Your task to perform on an android device: toggle sleep mode Image 0: 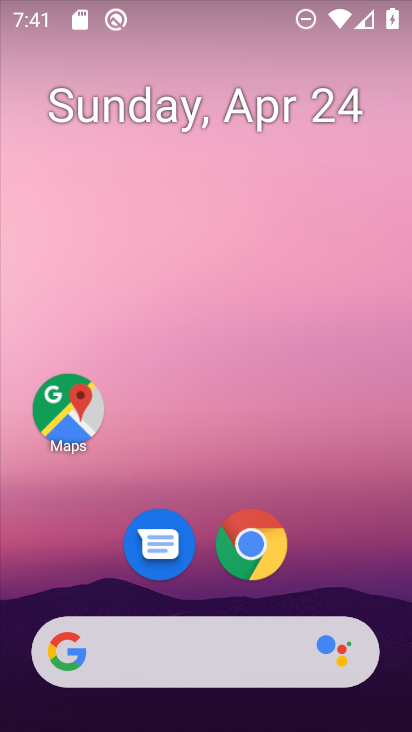
Step 0: drag from (185, 655) to (312, 50)
Your task to perform on an android device: toggle sleep mode Image 1: 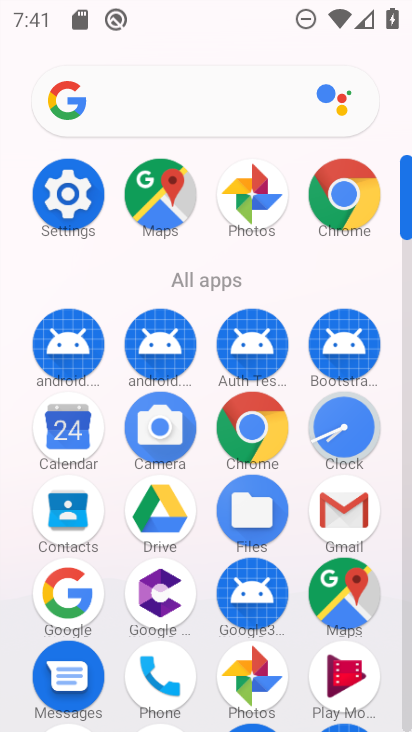
Step 1: click (70, 208)
Your task to perform on an android device: toggle sleep mode Image 2: 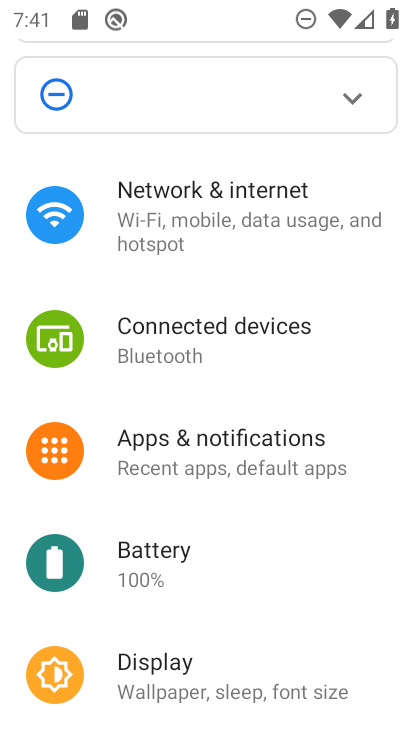
Step 2: click (142, 674)
Your task to perform on an android device: toggle sleep mode Image 3: 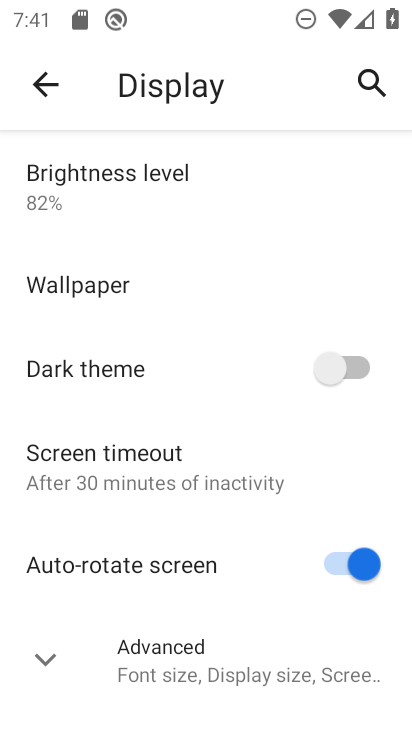
Step 3: click (50, 660)
Your task to perform on an android device: toggle sleep mode Image 4: 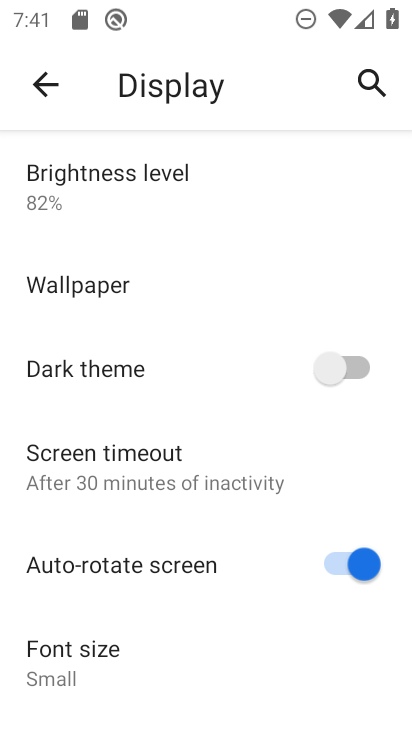
Step 4: task complete